Your task to perform on an android device: Show me popular videos on Youtube Image 0: 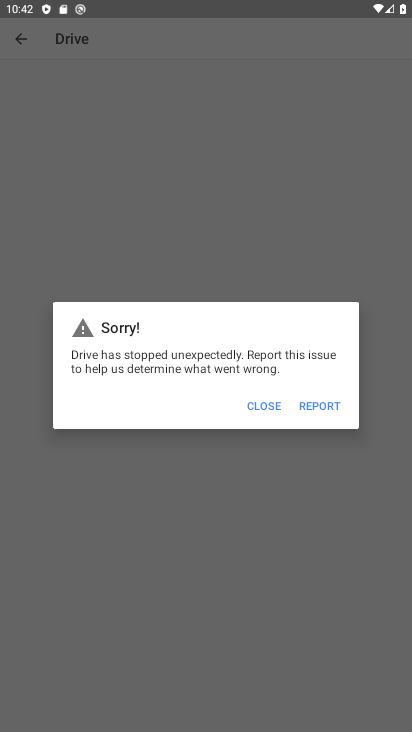
Step 0: press home button
Your task to perform on an android device: Show me popular videos on Youtube Image 1: 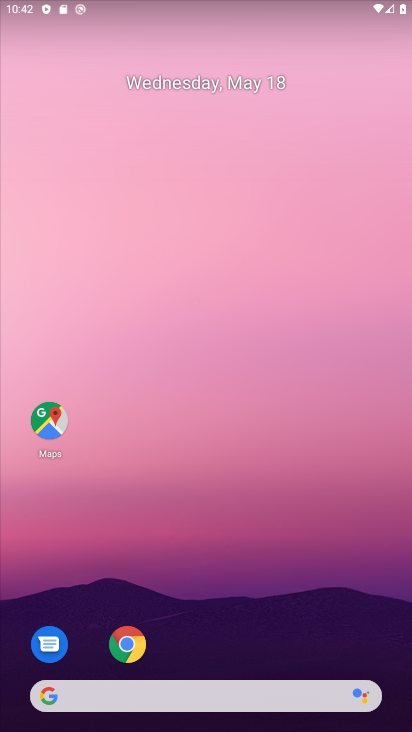
Step 1: click (366, 583)
Your task to perform on an android device: Show me popular videos on Youtube Image 2: 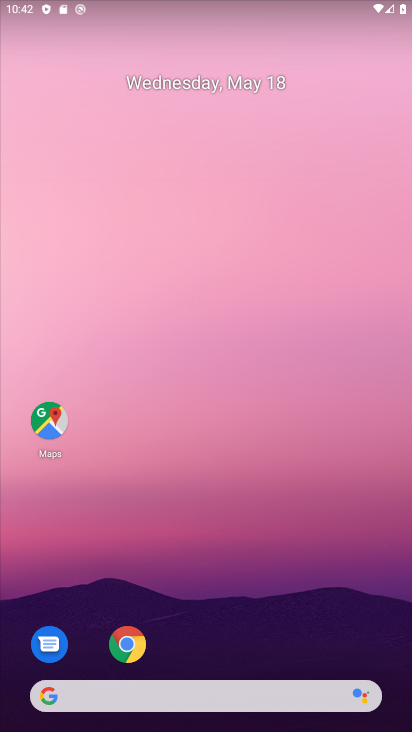
Step 2: drag from (326, 647) to (317, 99)
Your task to perform on an android device: Show me popular videos on Youtube Image 3: 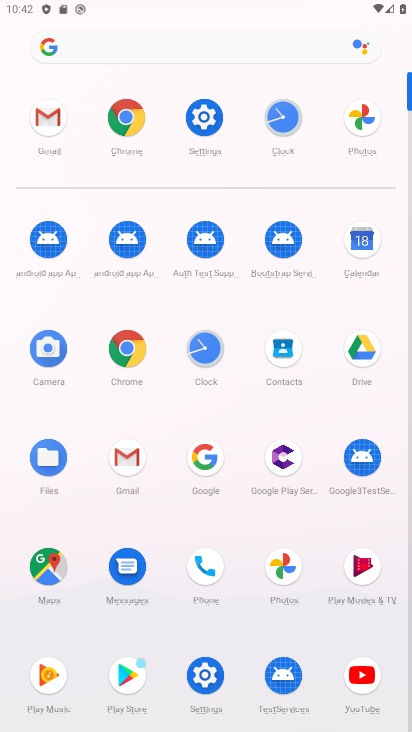
Step 3: click (371, 661)
Your task to perform on an android device: Show me popular videos on Youtube Image 4: 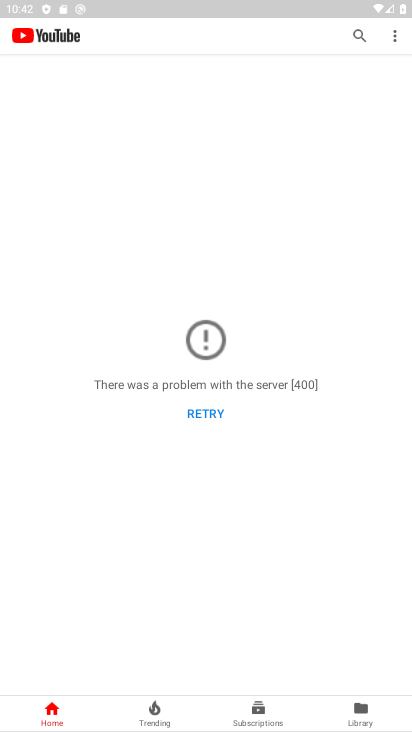
Step 4: task complete